Your task to perform on an android device: Is it going to rain this weekend? Image 0: 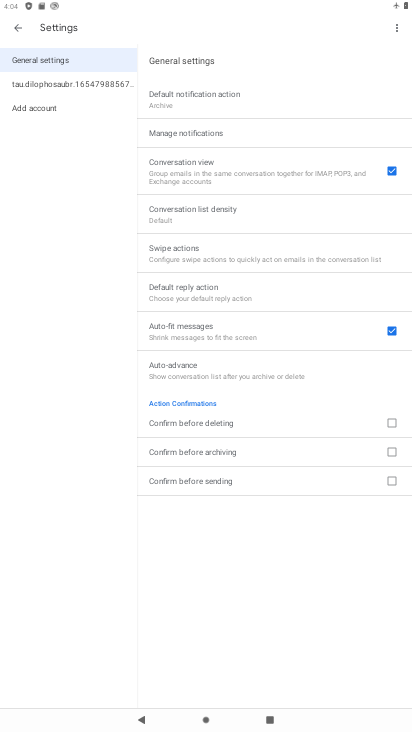
Step 0: press home button
Your task to perform on an android device: Is it going to rain this weekend? Image 1: 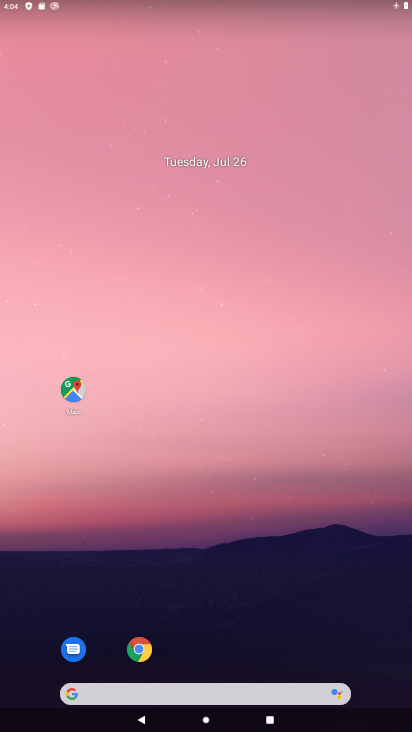
Step 1: drag from (195, 584) to (195, 255)
Your task to perform on an android device: Is it going to rain this weekend? Image 2: 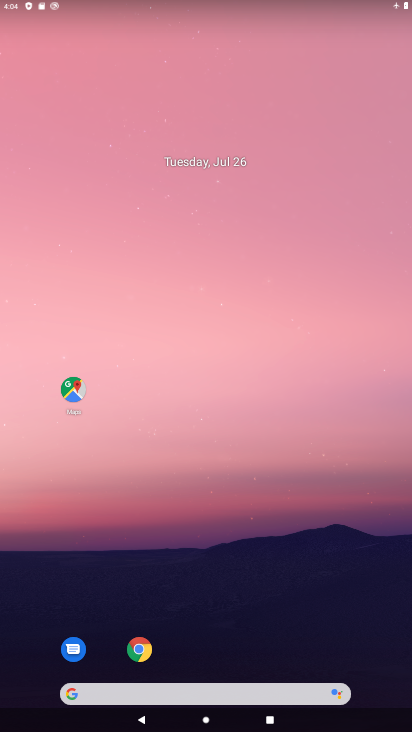
Step 2: drag from (209, 641) to (245, 255)
Your task to perform on an android device: Is it going to rain this weekend? Image 3: 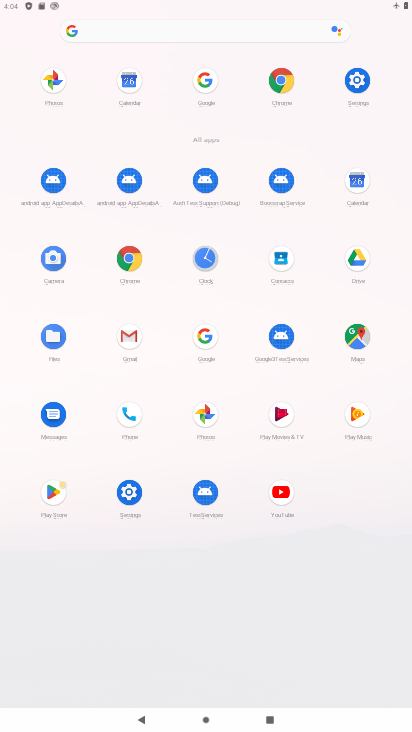
Step 3: click (218, 342)
Your task to perform on an android device: Is it going to rain this weekend? Image 4: 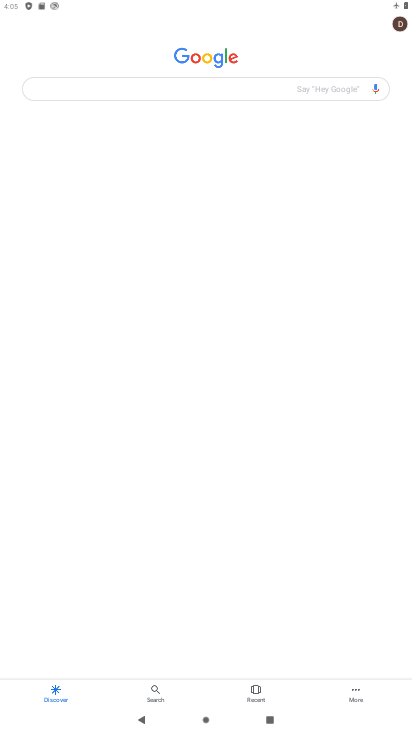
Step 4: click (153, 77)
Your task to perform on an android device: Is it going to rain this weekend? Image 5: 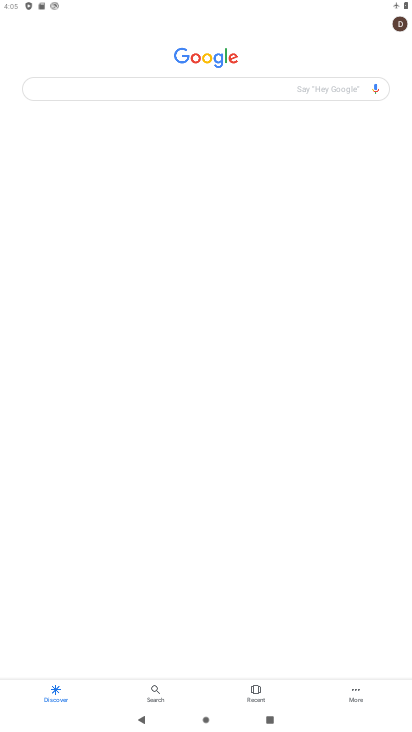
Step 5: click (170, 85)
Your task to perform on an android device: Is it going to rain this weekend? Image 6: 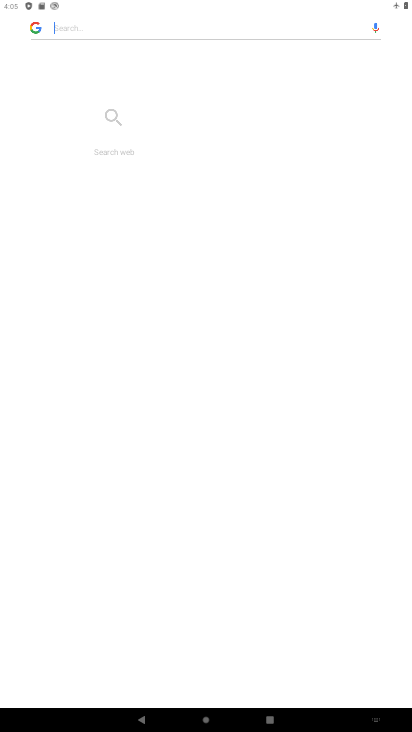
Step 6: type "weather"
Your task to perform on an android device: Is it going to rain this weekend? Image 7: 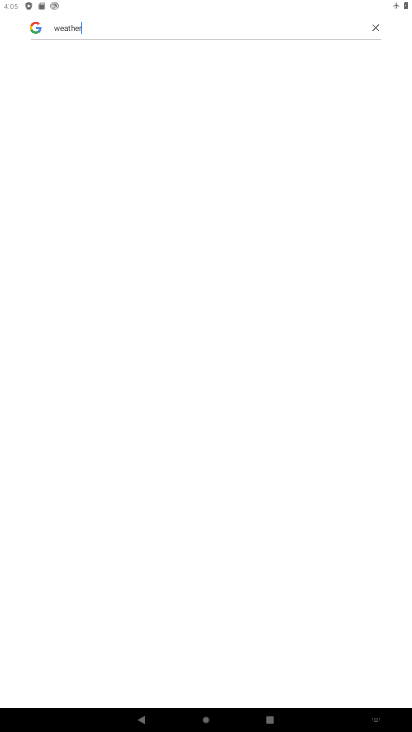
Step 7: task complete